Your task to perform on an android device: Open network settings Image 0: 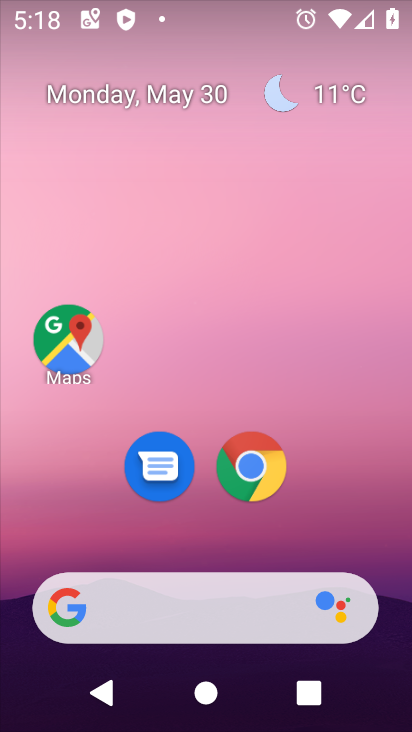
Step 0: drag from (341, 497) to (309, 62)
Your task to perform on an android device: Open network settings Image 1: 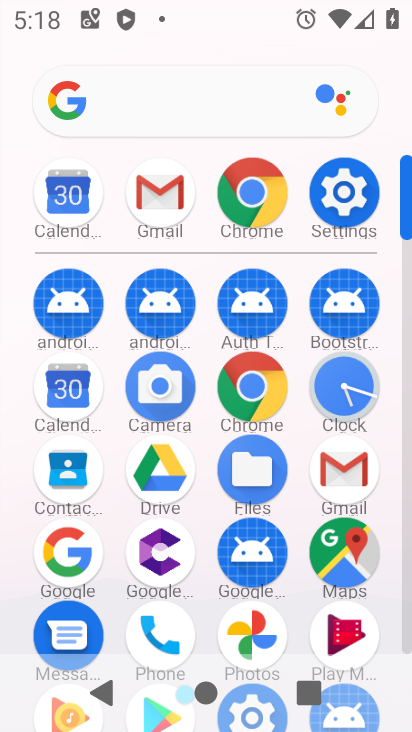
Step 1: click (338, 194)
Your task to perform on an android device: Open network settings Image 2: 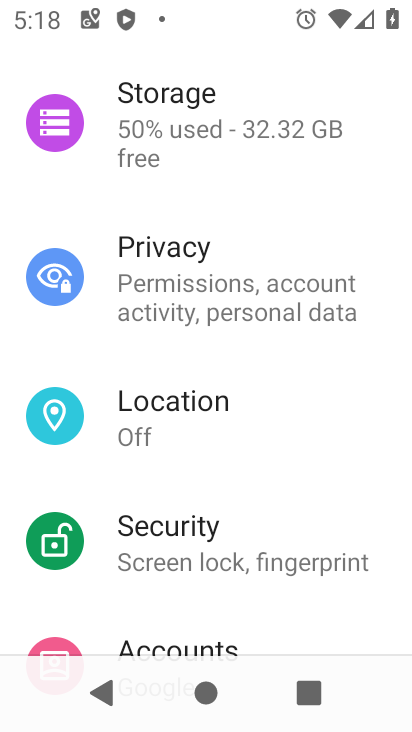
Step 2: drag from (176, 150) to (254, 610)
Your task to perform on an android device: Open network settings Image 3: 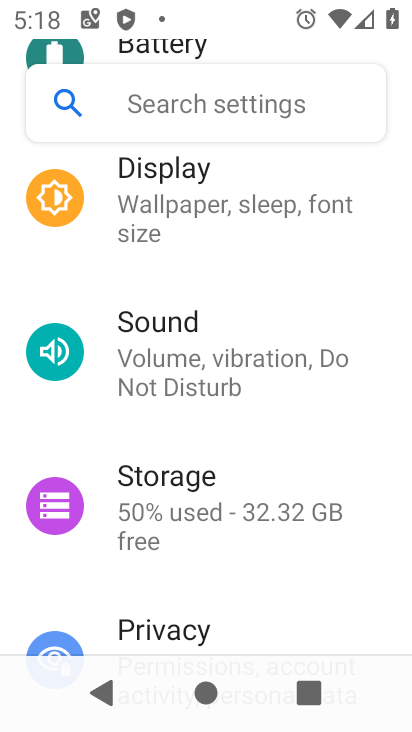
Step 3: drag from (244, 206) to (295, 535)
Your task to perform on an android device: Open network settings Image 4: 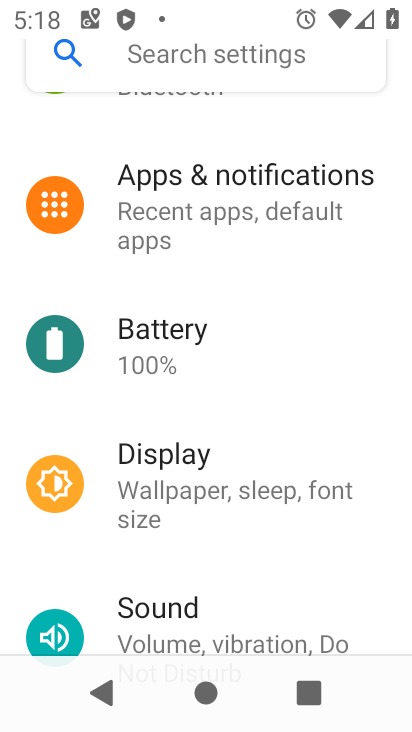
Step 4: drag from (227, 202) to (282, 595)
Your task to perform on an android device: Open network settings Image 5: 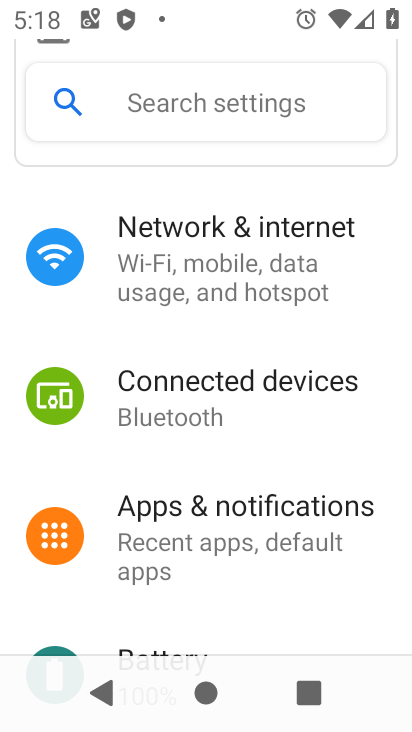
Step 5: click (219, 257)
Your task to perform on an android device: Open network settings Image 6: 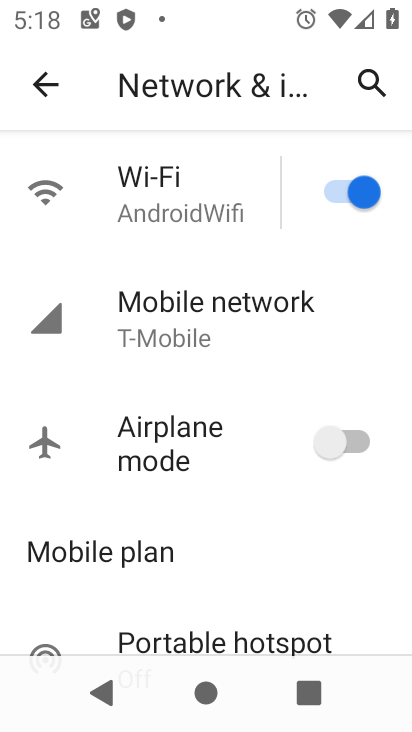
Step 6: task complete